Your task to perform on an android device: Do I have any events tomorrow? Image 0: 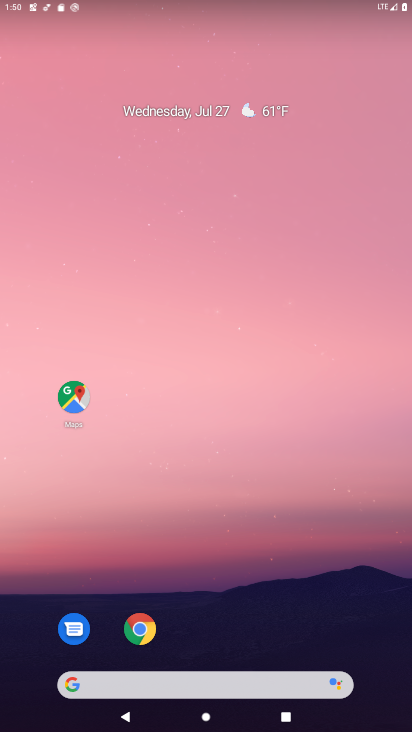
Step 0: drag from (175, 661) to (156, 193)
Your task to perform on an android device: Do I have any events tomorrow? Image 1: 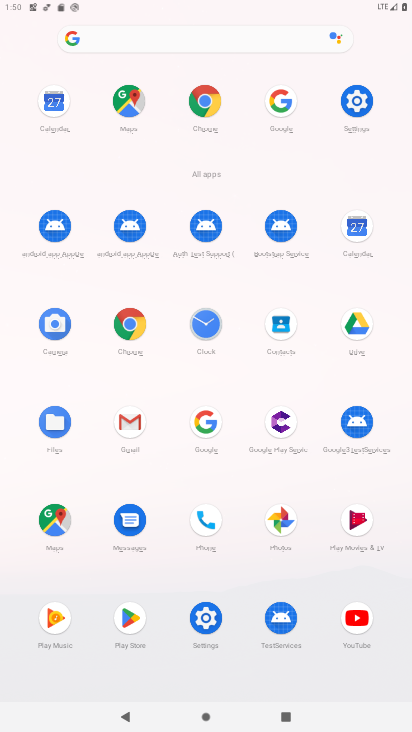
Step 1: click (343, 238)
Your task to perform on an android device: Do I have any events tomorrow? Image 2: 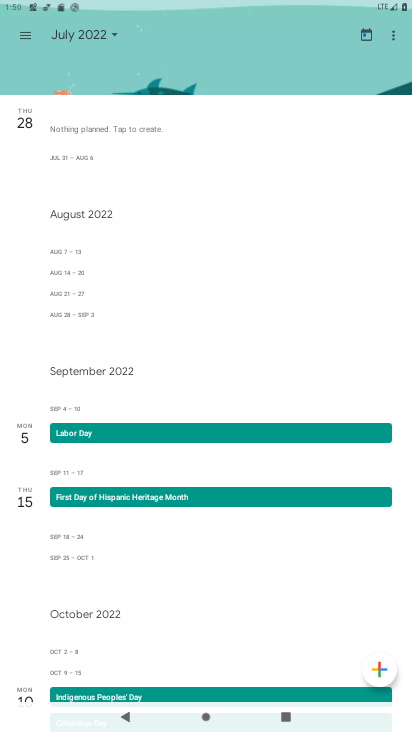
Step 2: task complete